Your task to perform on an android device: Open Wikipedia Image 0: 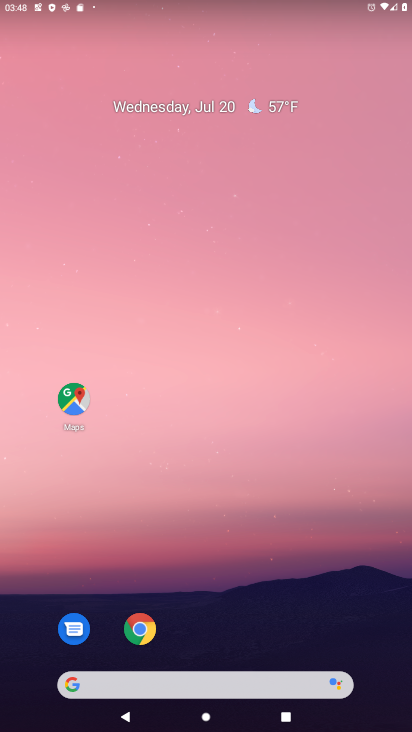
Step 0: click (139, 629)
Your task to perform on an android device: Open Wikipedia Image 1: 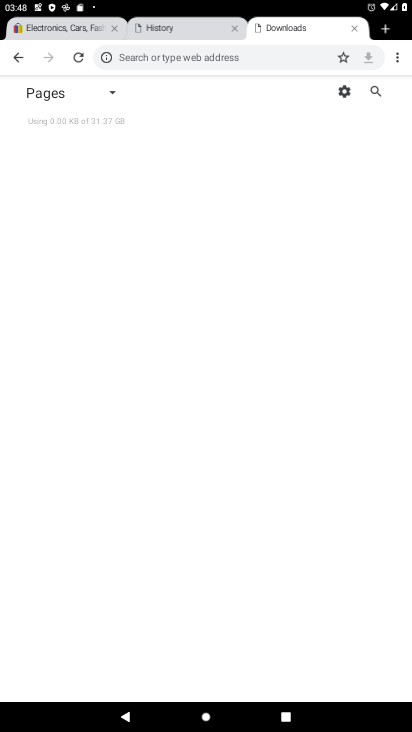
Step 1: click (158, 50)
Your task to perform on an android device: Open Wikipedia Image 2: 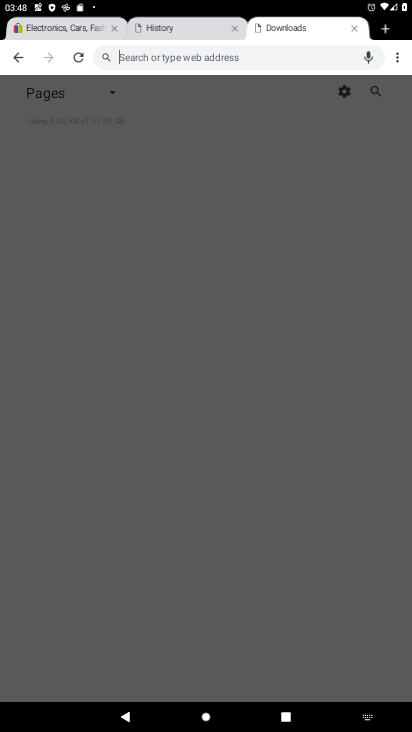
Step 2: type "wikipedia"
Your task to perform on an android device: Open Wikipedia Image 3: 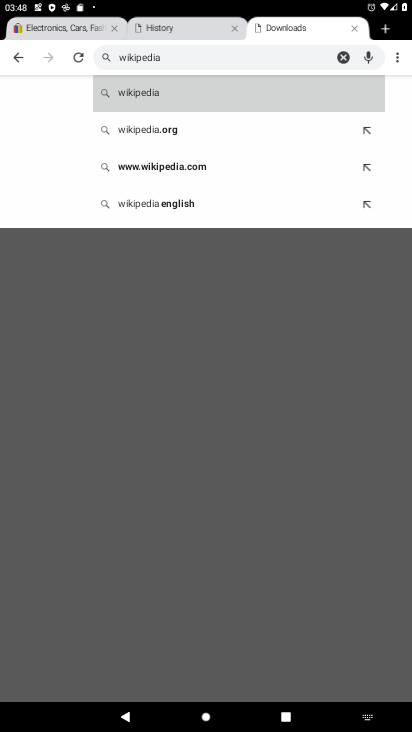
Step 3: click (147, 88)
Your task to perform on an android device: Open Wikipedia Image 4: 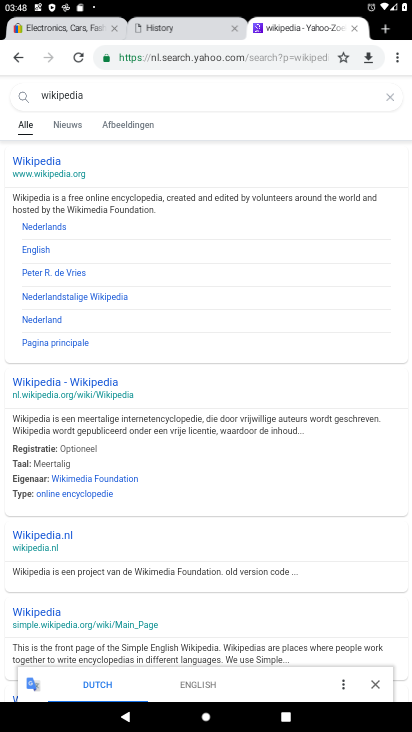
Step 4: click (27, 164)
Your task to perform on an android device: Open Wikipedia Image 5: 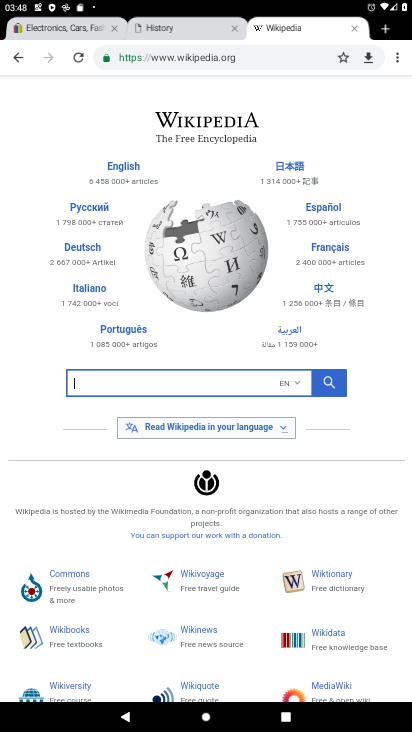
Step 5: task complete